Your task to perform on an android device: toggle location history Image 0: 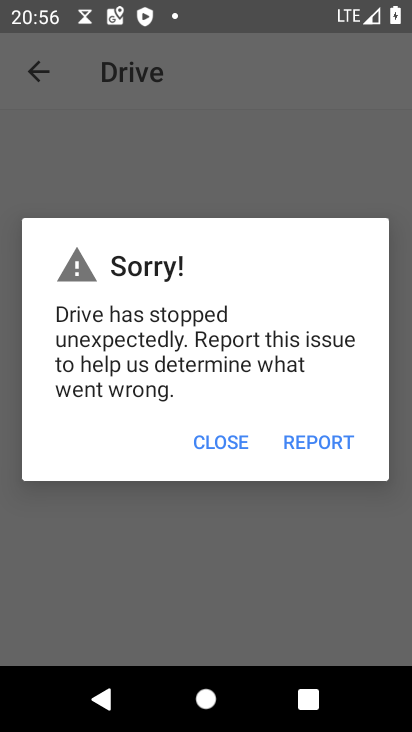
Step 0: click (239, 437)
Your task to perform on an android device: toggle location history Image 1: 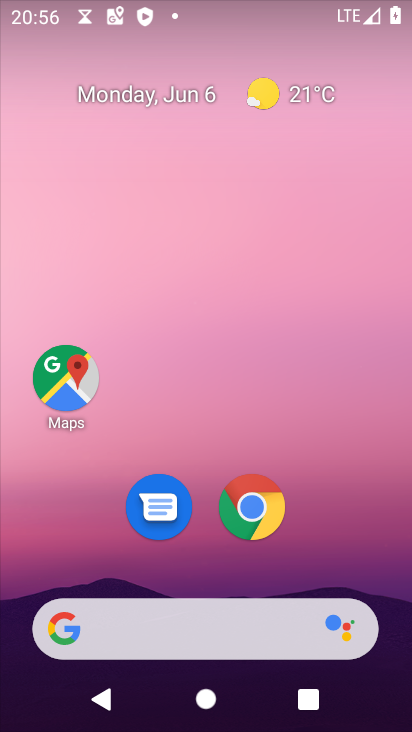
Step 1: drag from (217, 571) to (275, 33)
Your task to perform on an android device: toggle location history Image 2: 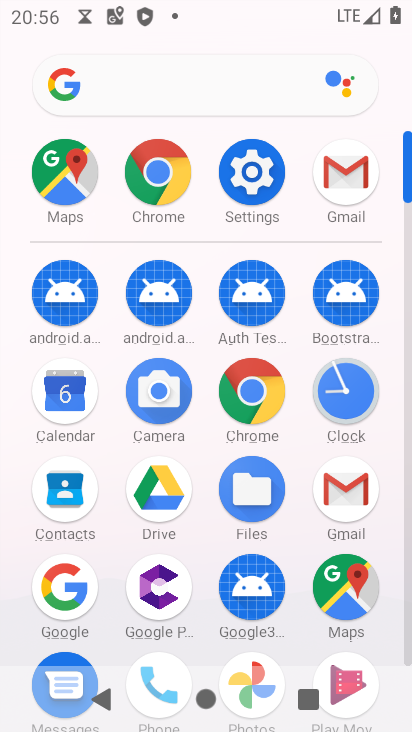
Step 2: drag from (171, 556) to (207, 301)
Your task to perform on an android device: toggle location history Image 3: 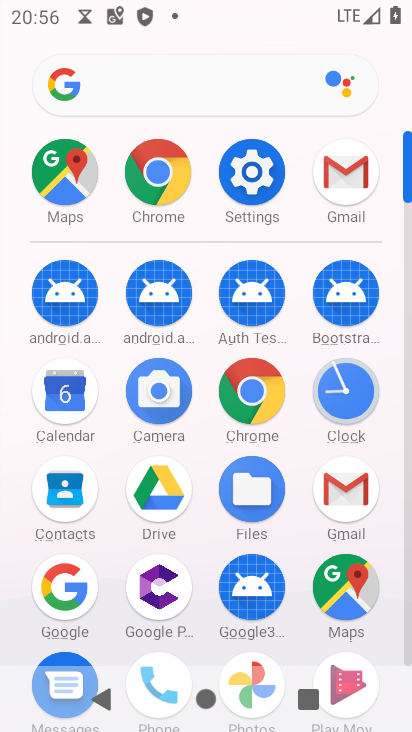
Step 3: drag from (232, 487) to (253, 355)
Your task to perform on an android device: toggle location history Image 4: 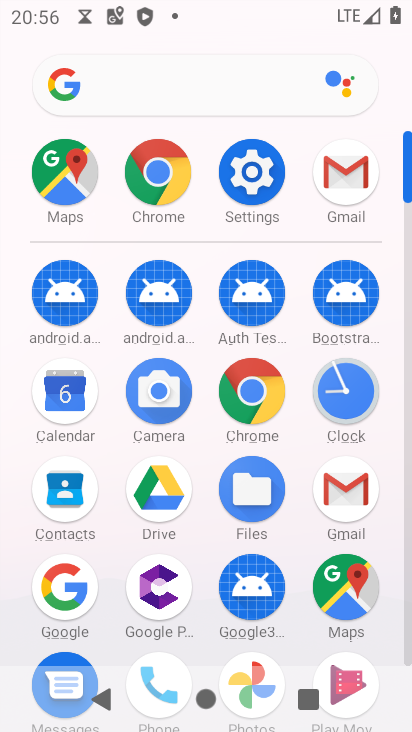
Step 4: drag from (204, 553) to (192, 314)
Your task to perform on an android device: toggle location history Image 5: 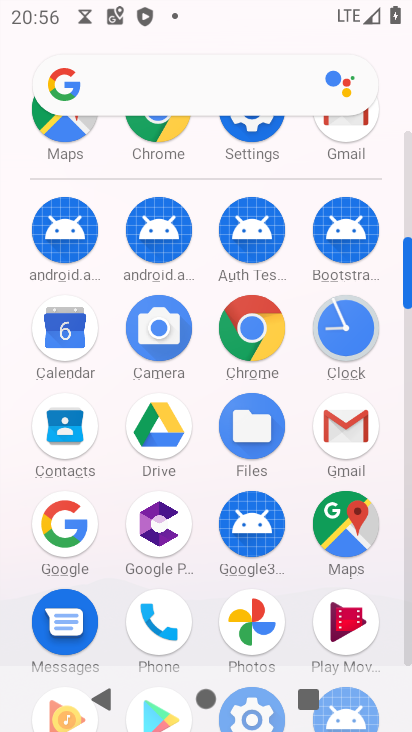
Step 5: drag from (195, 231) to (211, 640)
Your task to perform on an android device: toggle location history Image 6: 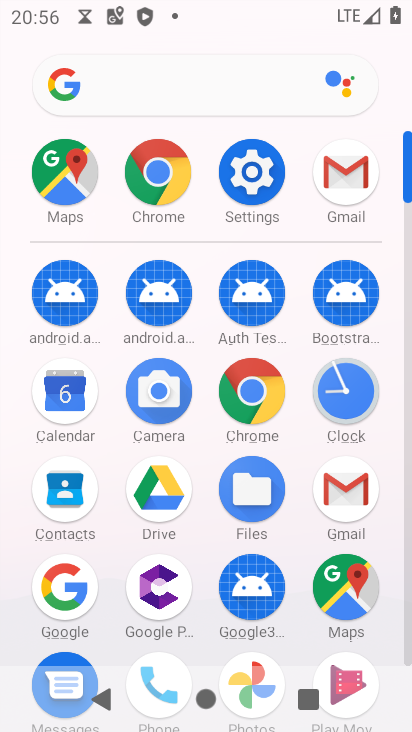
Step 6: drag from (305, 558) to (287, 8)
Your task to perform on an android device: toggle location history Image 7: 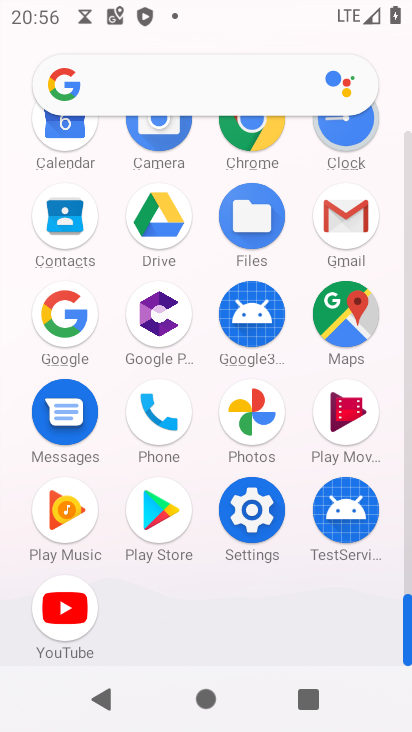
Step 7: drag from (260, 205) to (181, 692)
Your task to perform on an android device: toggle location history Image 8: 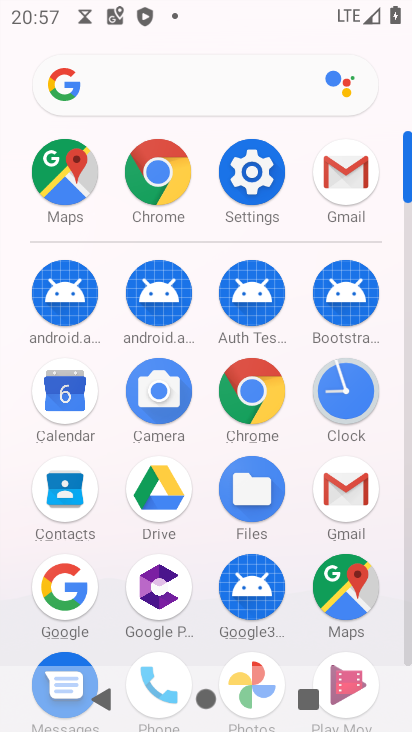
Step 8: drag from (256, 553) to (256, 160)
Your task to perform on an android device: toggle location history Image 9: 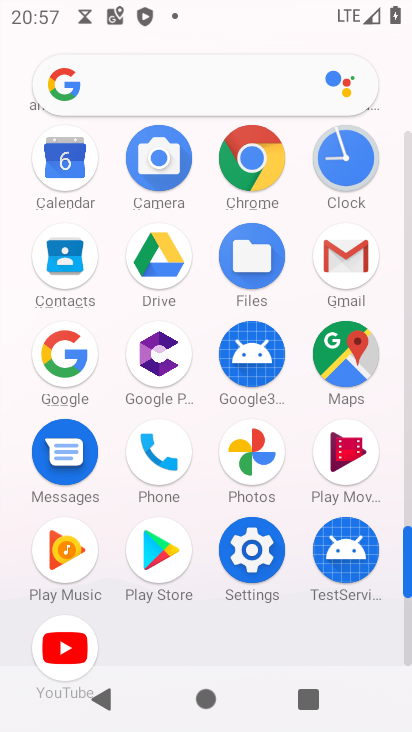
Step 9: drag from (318, 188) to (190, 660)
Your task to perform on an android device: toggle location history Image 10: 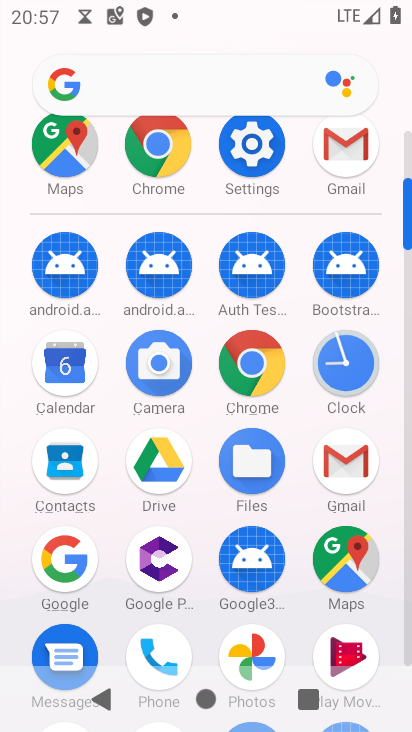
Step 10: drag from (293, 274) to (269, 579)
Your task to perform on an android device: toggle location history Image 11: 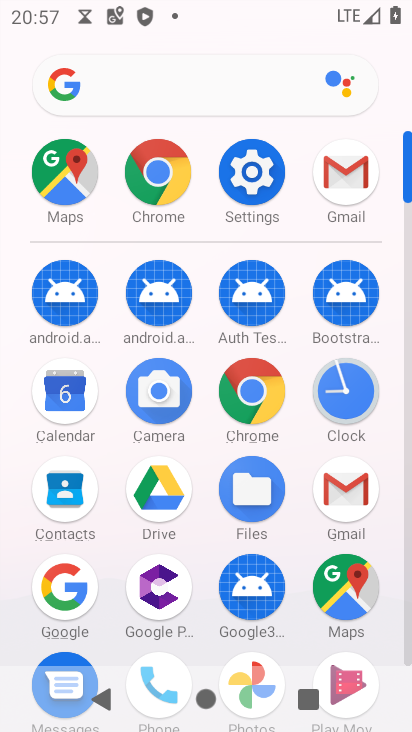
Step 11: drag from (199, 617) to (199, 259)
Your task to perform on an android device: toggle location history Image 12: 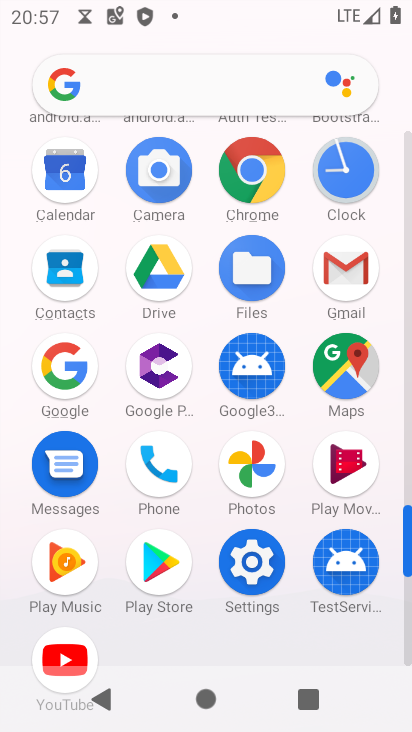
Step 12: drag from (190, 153) to (203, 446)
Your task to perform on an android device: toggle location history Image 13: 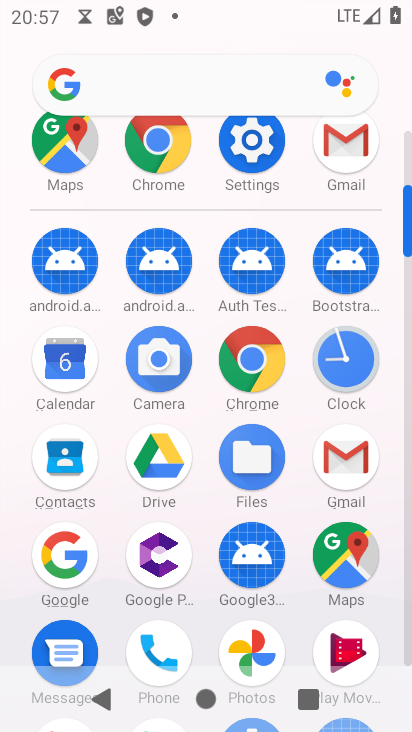
Step 13: drag from (211, 192) to (183, 551)
Your task to perform on an android device: toggle location history Image 14: 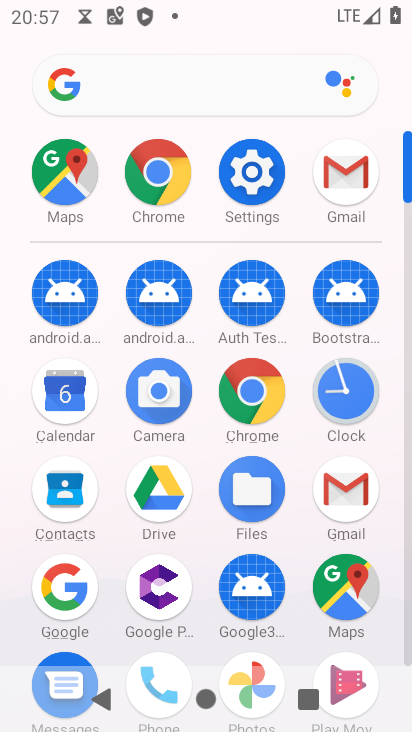
Step 14: click (256, 174)
Your task to perform on an android device: toggle location history Image 15: 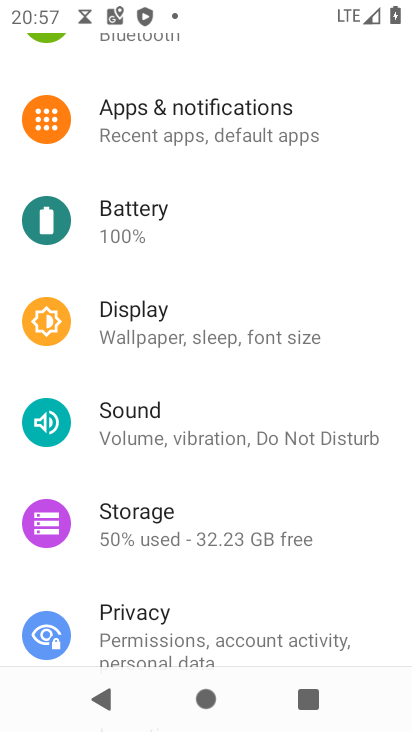
Step 15: click (161, 146)
Your task to perform on an android device: toggle location history Image 16: 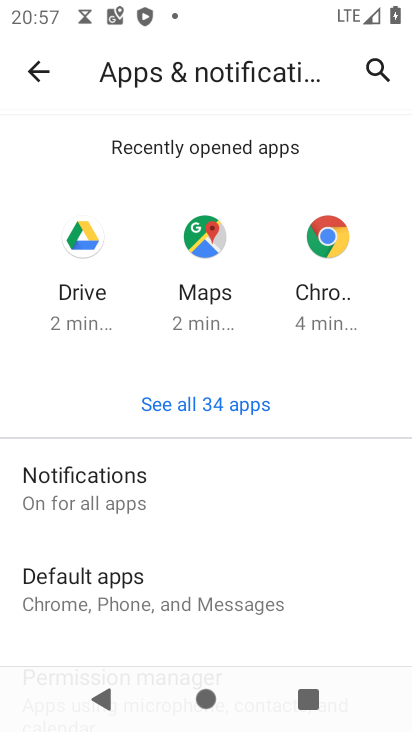
Step 16: click (114, 493)
Your task to perform on an android device: toggle location history Image 17: 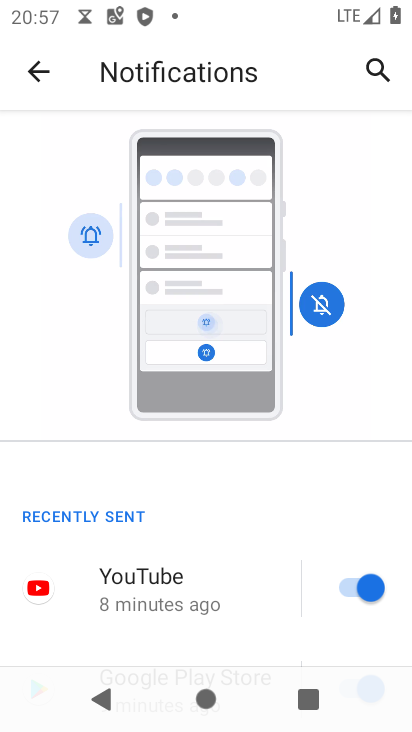
Step 17: drag from (200, 609) to (247, 303)
Your task to perform on an android device: toggle location history Image 18: 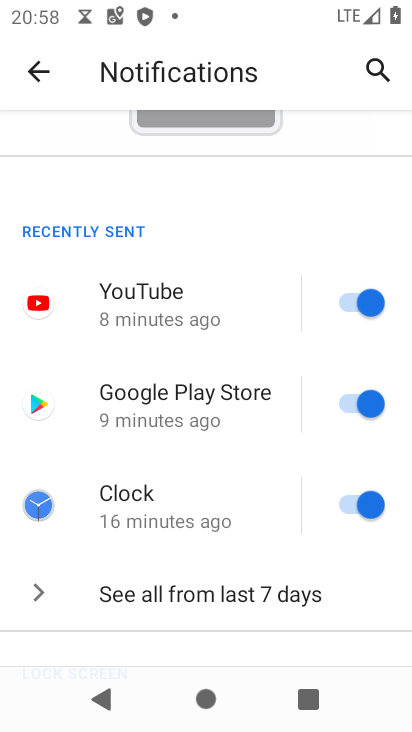
Step 18: drag from (229, 506) to (229, 296)
Your task to perform on an android device: toggle location history Image 19: 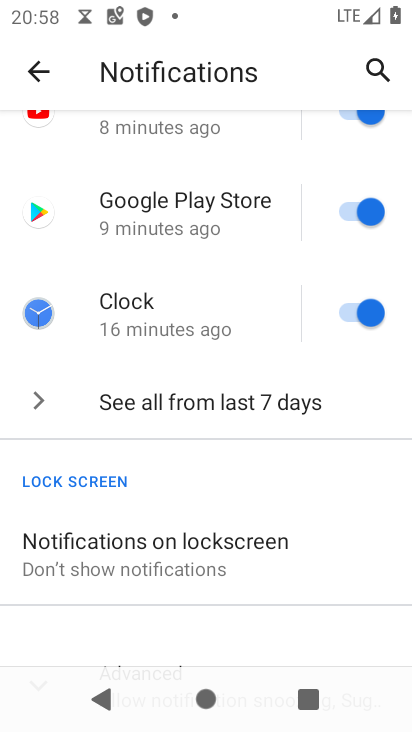
Step 19: click (171, 559)
Your task to perform on an android device: toggle location history Image 20: 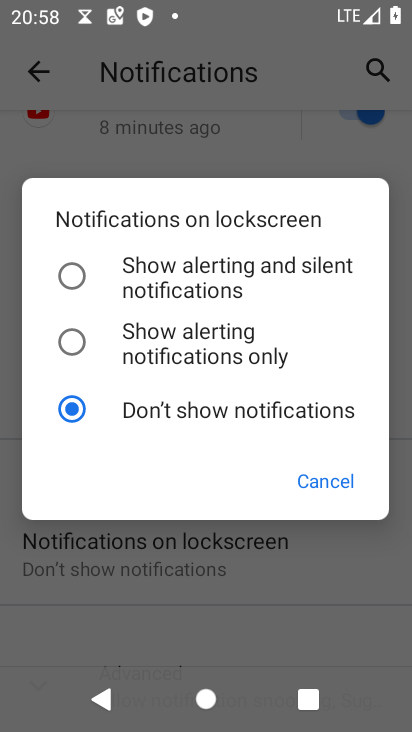
Step 20: click (295, 490)
Your task to perform on an android device: toggle location history Image 21: 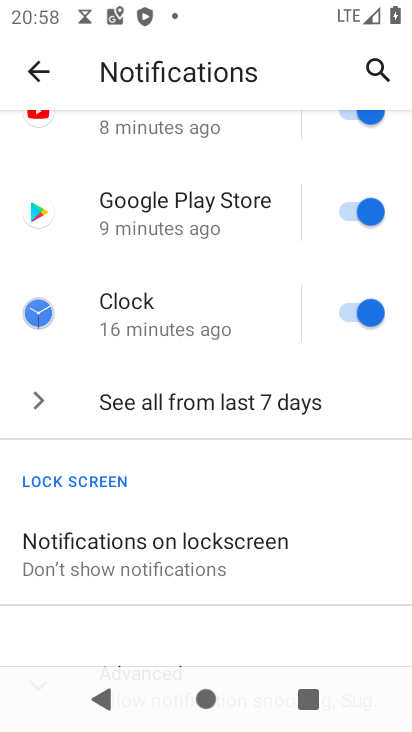
Step 21: drag from (235, 587) to (290, 203)
Your task to perform on an android device: toggle location history Image 22: 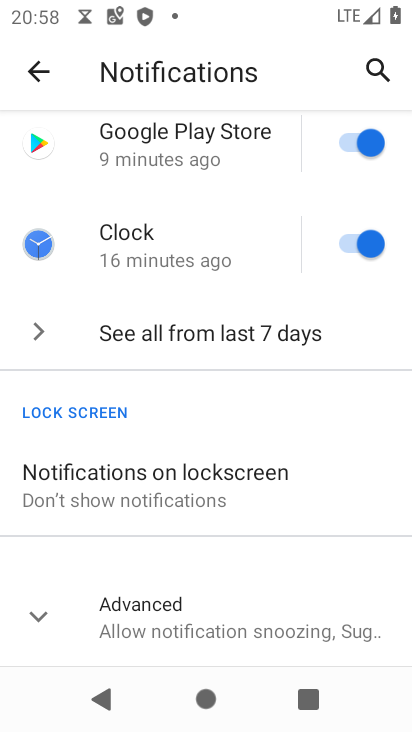
Step 22: click (155, 614)
Your task to perform on an android device: toggle location history Image 23: 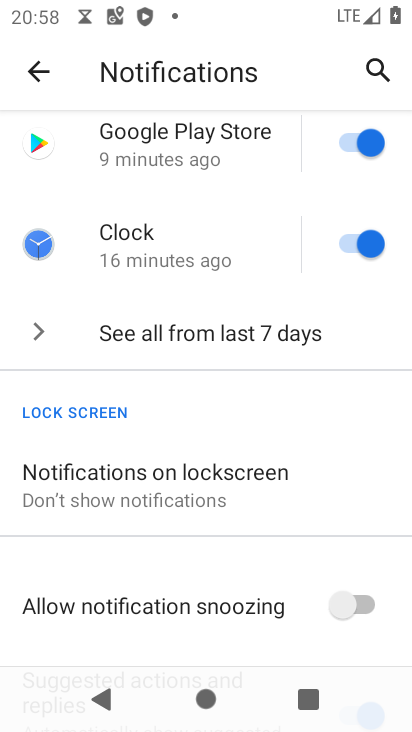
Step 23: drag from (163, 597) to (168, 115)
Your task to perform on an android device: toggle location history Image 24: 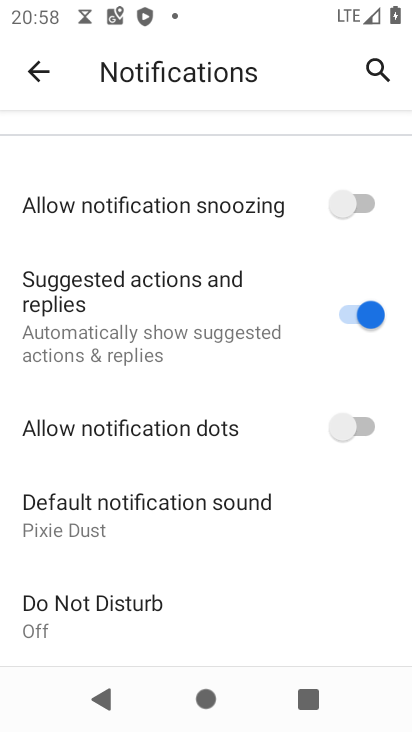
Step 24: drag from (197, 518) to (234, 252)
Your task to perform on an android device: toggle location history Image 25: 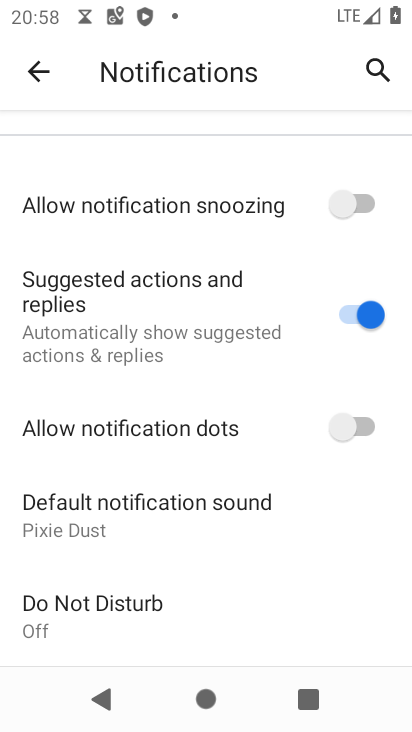
Step 25: drag from (168, 560) to (192, 188)
Your task to perform on an android device: toggle location history Image 26: 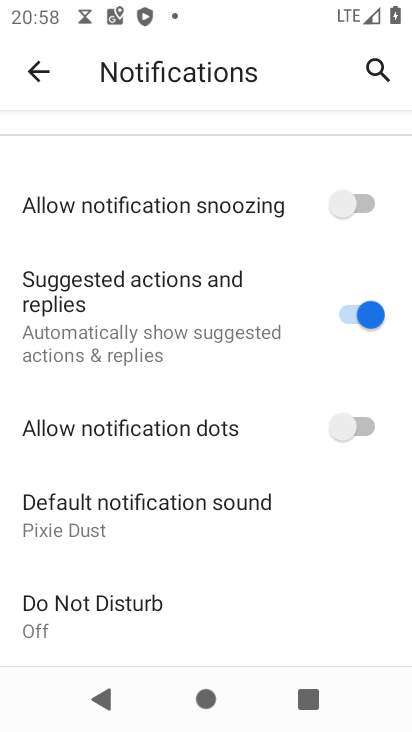
Step 26: drag from (195, 210) to (204, 463)
Your task to perform on an android device: toggle location history Image 27: 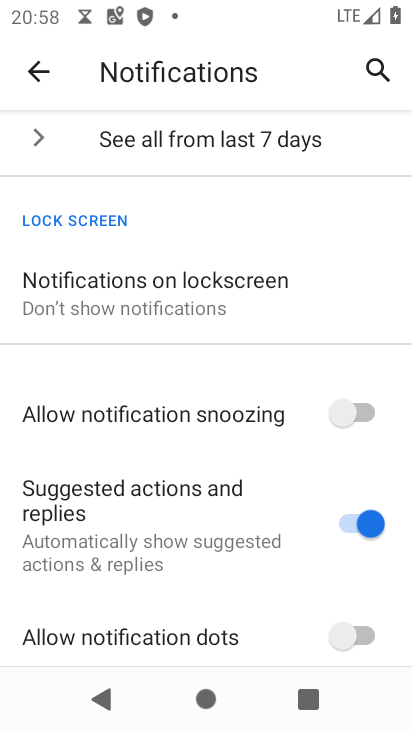
Step 27: press home button
Your task to perform on an android device: toggle location history Image 28: 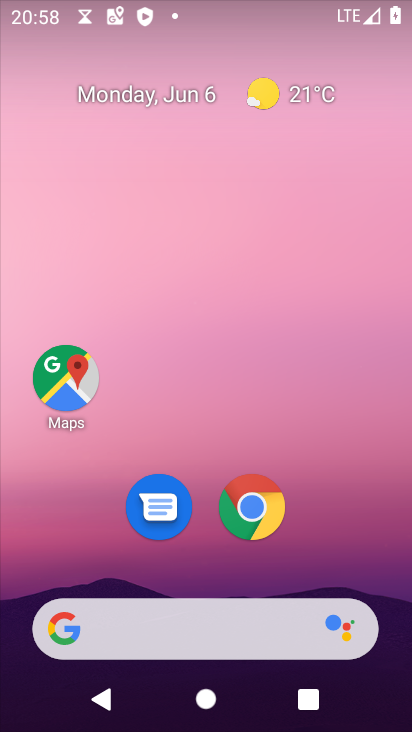
Step 28: drag from (230, 563) to (237, 140)
Your task to perform on an android device: toggle location history Image 29: 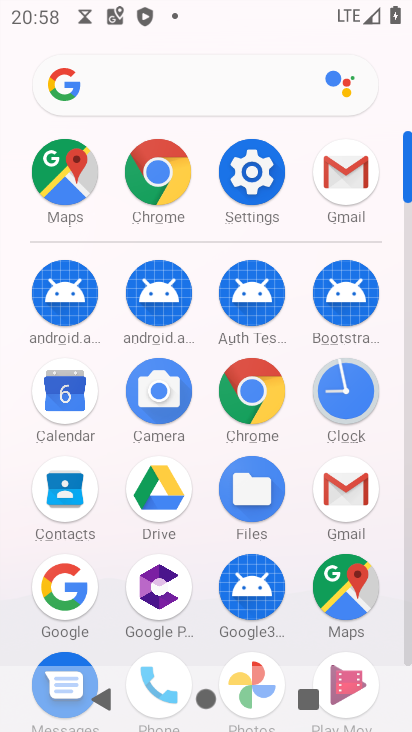
Step 29: click (257, 172)
Your task to perform on an android device: toggle location history Image 30: 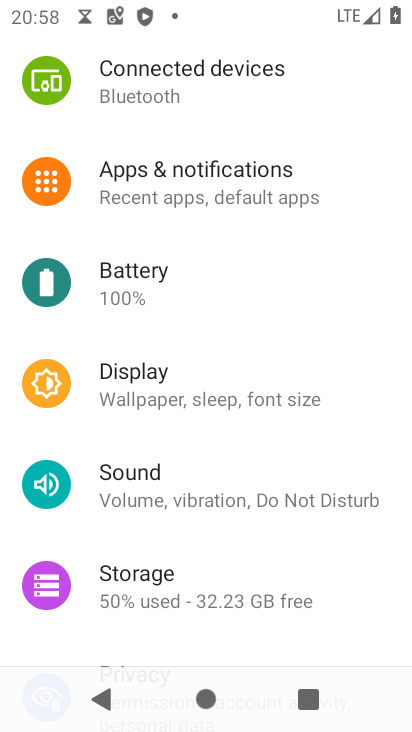
Step 30: drag from (190, 537) to (233, 161)
Your task to perform on an android device: toggle location history Image 31: 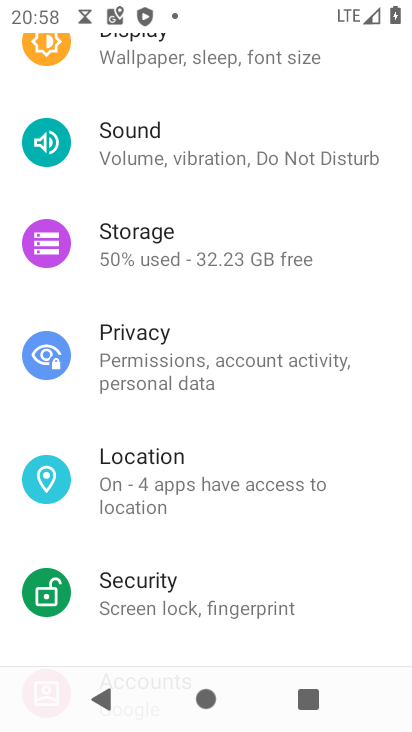
Step 31: click (134, 500)
Your task to perform on an android device: toggle location history Image 32: 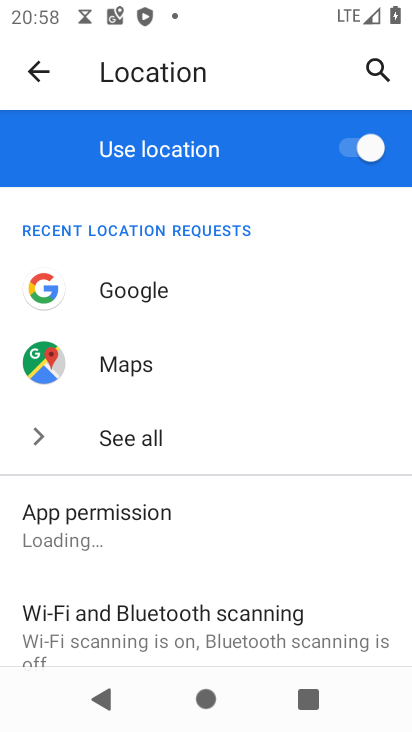
Step 32: drag from (150, 547) to (233, 198)
Your task to perform on an android device: toggle location history Image 33: 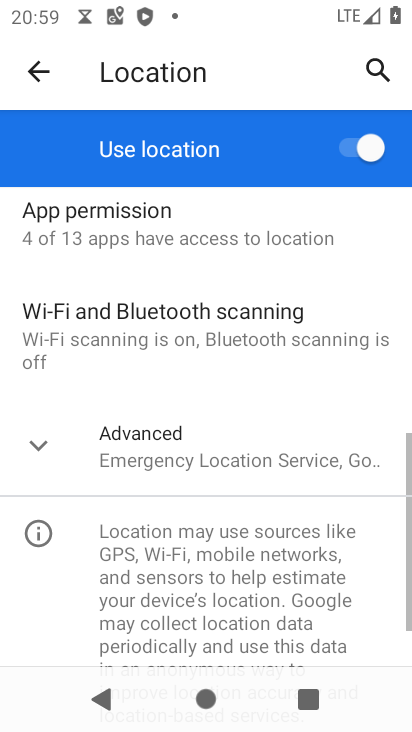
Step 33: click (153, 461)
Your task to perform on an android device: toggle location history Image 34: 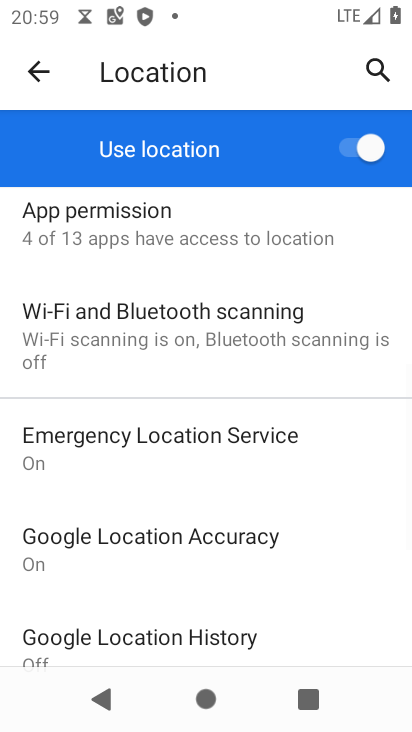
Step 34: drag from (159, 571) to (238, 299)
Your task to perform on an android device: toggle location history Image 35: 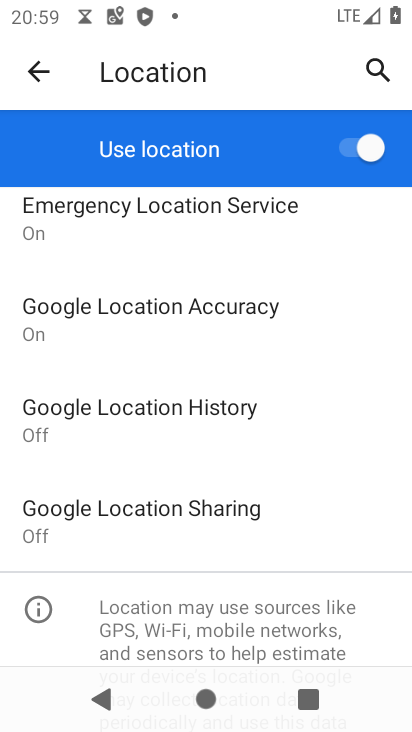
Step 35: click (221, 403)
Your task to perform on an android device: toggle location history Image 36: 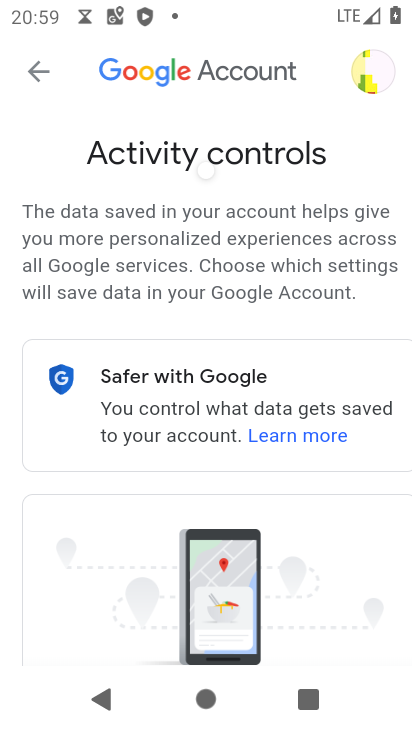
Step 36: drag from (297, 630) to (318, 223)
Your task to perform on an android device: toggle location history Image 37: 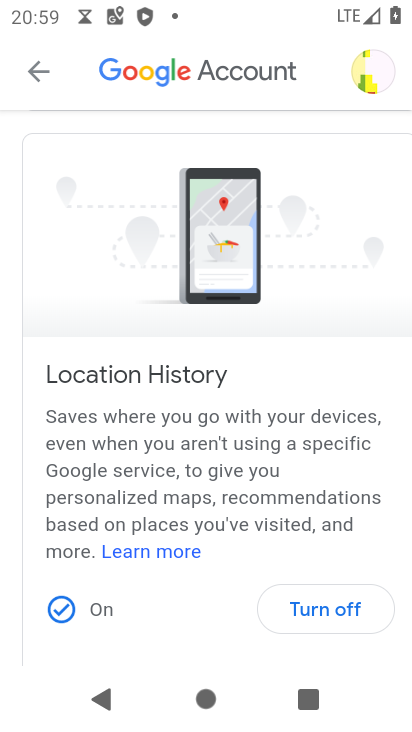
Step 37: drag from (255, 544) to (329, 277)
Your task to perform on an android device: toggle location history Image 38: 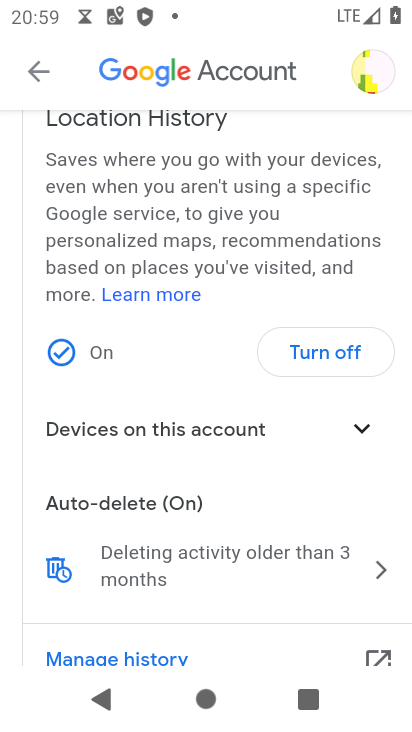
Step 38: click (336, 358)
Your task to perform on an android device: toggle location history Image 39: 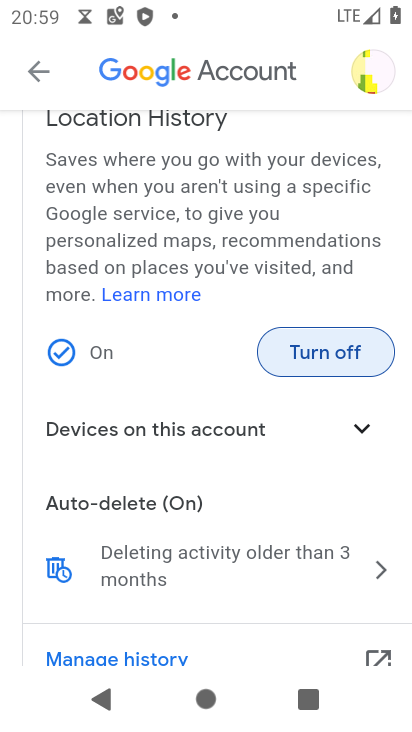
Step 39: click (307, 365)
Your task to perform on an android device: toggle location history Image 40: 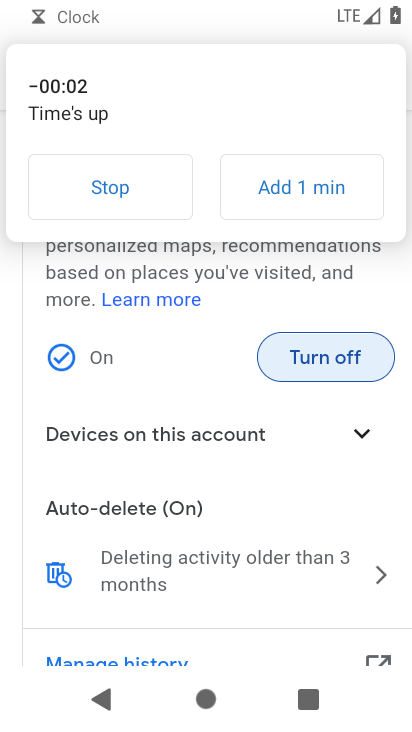
Step 40: click (130, 178)
Your task to perform on an android device: toggle location history Image 41: 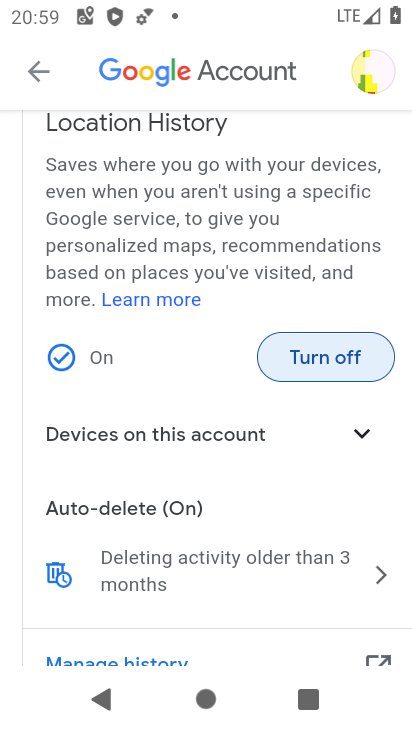
Step 41: click (304, 351)
Your task to perform on an android device: toggle location history Image 42: 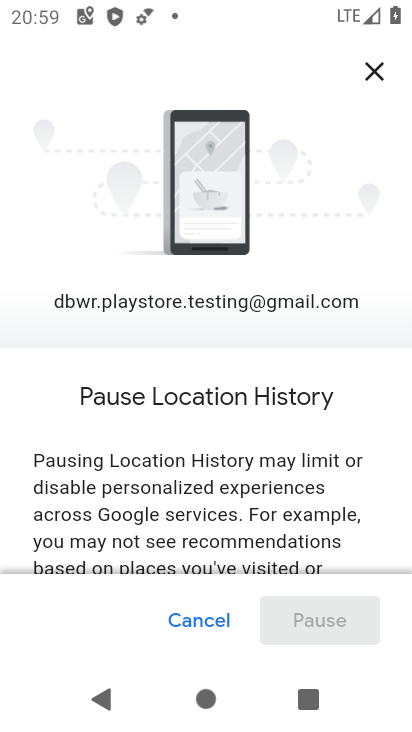
Step 42: drag from (263, 490) to (243, 162)
Your task to perform on an android device: toggle location history Image 43: 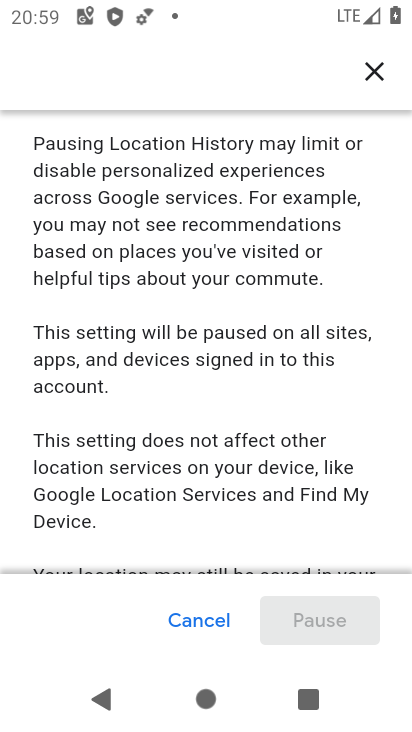
Step 43: drag from (227, 468) to (213, 142)
Your task to perform on an android device: toggle location history Image 44: 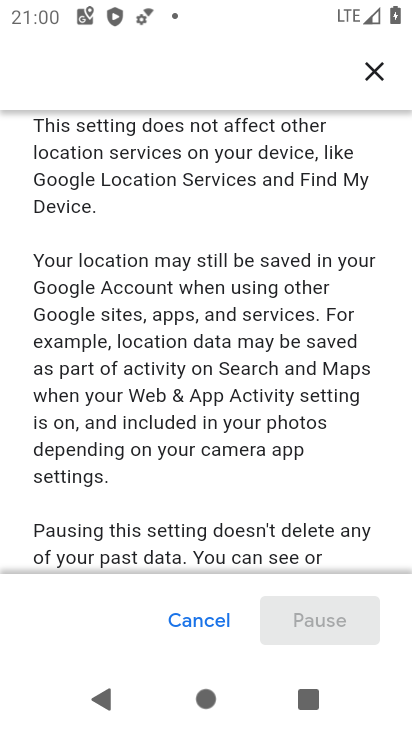
Step 44: drag from (230, 506) to (273, 155)
Your task to perform on an android device: toggle location history Image 45: 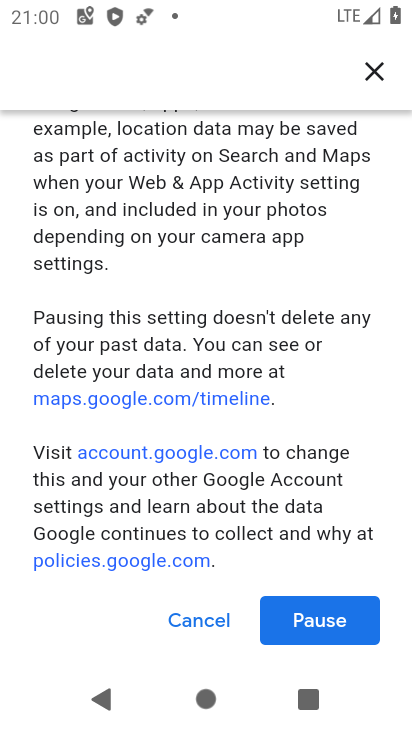
Step 45: click (282, 612)
Your task to perform on an android device: toggle location history Image 46: 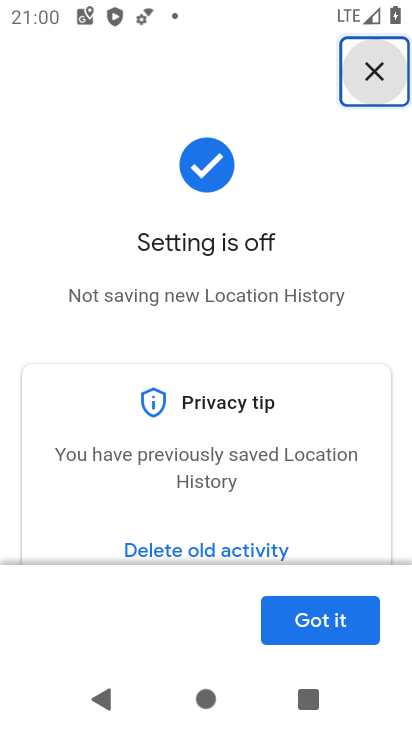
Step 46: click (293, 618)
Your task to perform on an android device: toggle location history Image 47: 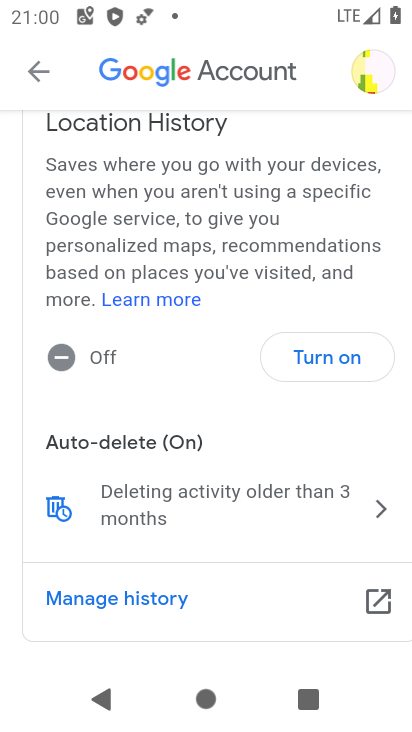
Step 47: task complete